Your task to perform on an android device: turn off airplane mode Image 0: 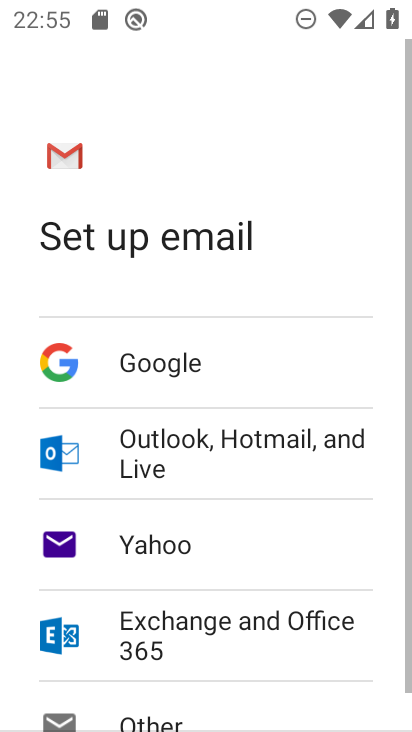
Step 0: press home button
Your task to perform on an android device: turn off airplane mode Image 1: 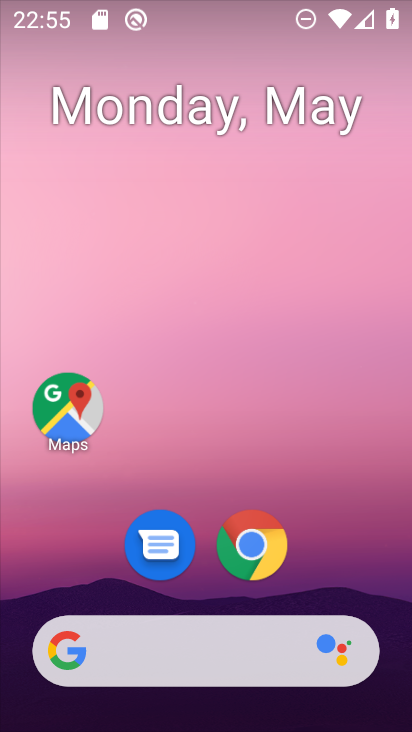
Step 1: drag from (329, 575) to (263, 23)
Your task to perform on an android device: turn off airplane mode Image 2: 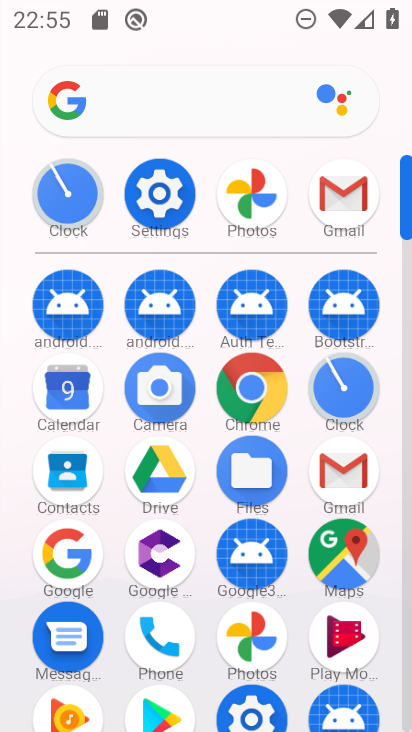
Step 2: click (160, 191)
Your task to perform on an android device: turn off airplane mode Image 3: 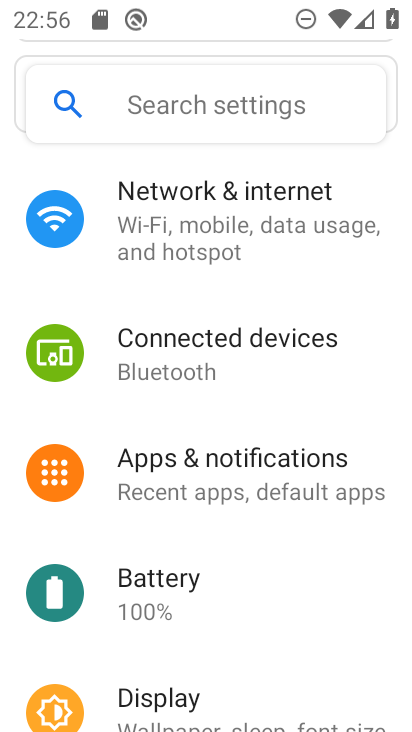
Step 3: click (197, 216)
Your task to perform on an android device: turn off airplane mode Image 4: 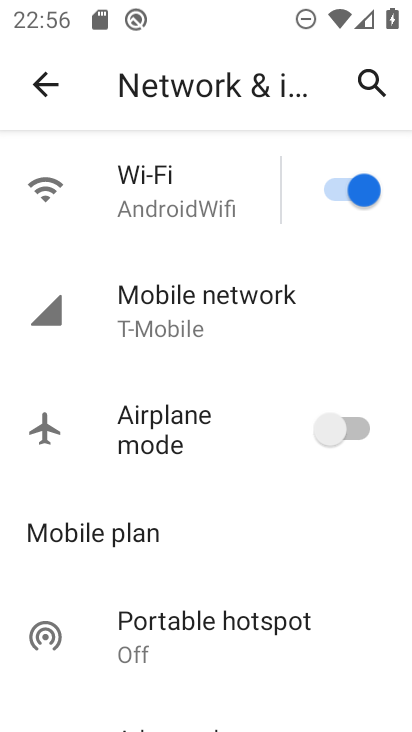
Step 4: task complete